Your task to perform on an android device: Open Amazon Image 0: 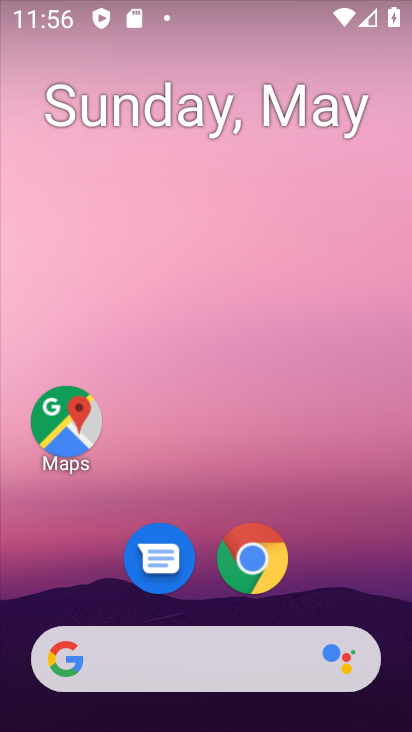
Step 0: drag from (323, 581) to (330, 84)
Your task to perform on an android device: Open Amazon Image 1: 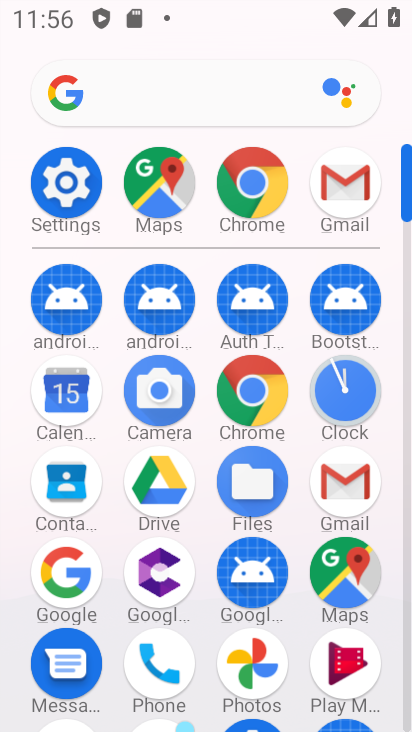
Step 1: click (263, 392)
Your task to perform on an android device: Open Amazon Image 2: 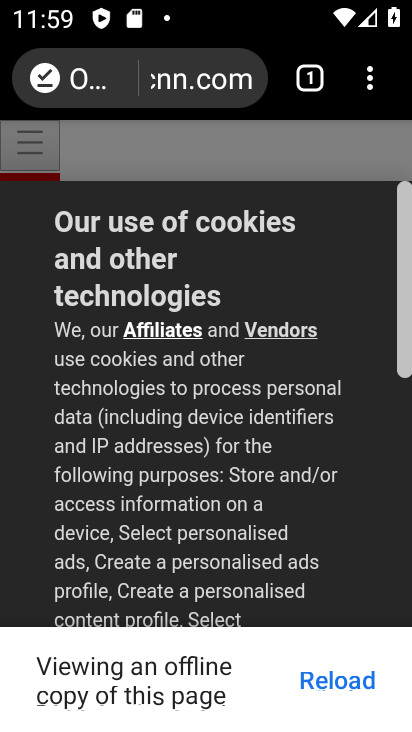
Step 2: press back button
Your task to perform on an android device: Open Amazon Image 3: 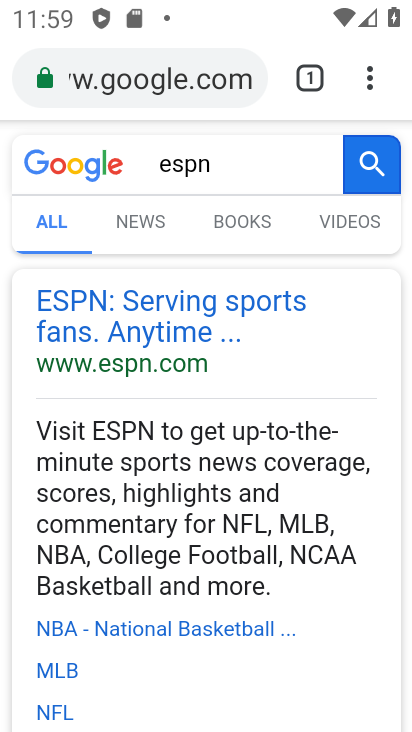
Step 3: press back button
Your task to perform on an android device: Open Amazon Image 4: 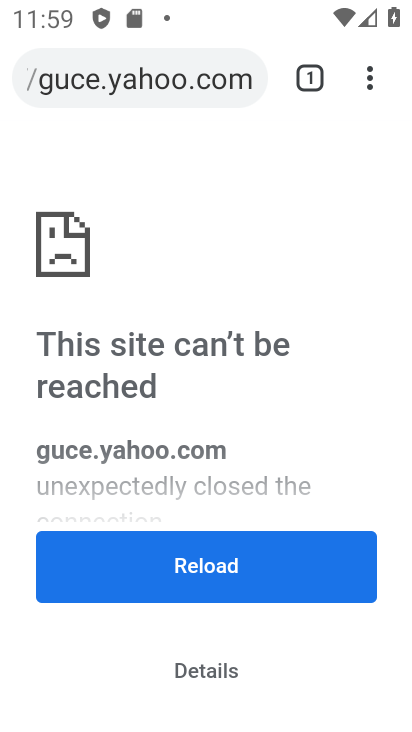
Step 4: press back button
Your task to perform on an android device: Open Amazon Image 5: 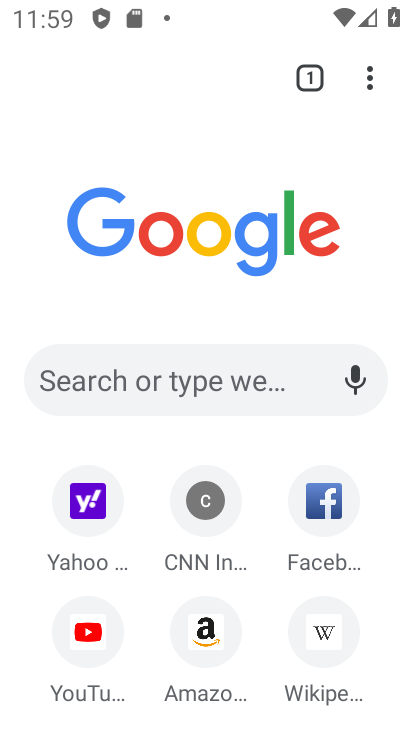
Step 5: click (207, 642)
Your task to perform on an android device: Open Amazon Image 6: 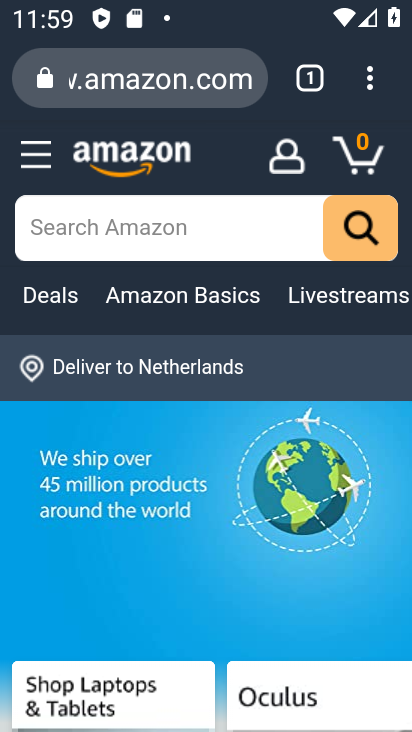
Step 6: task complete